Your task to perform on an android device: allow notifications from all sites in the chrome app Image 0: 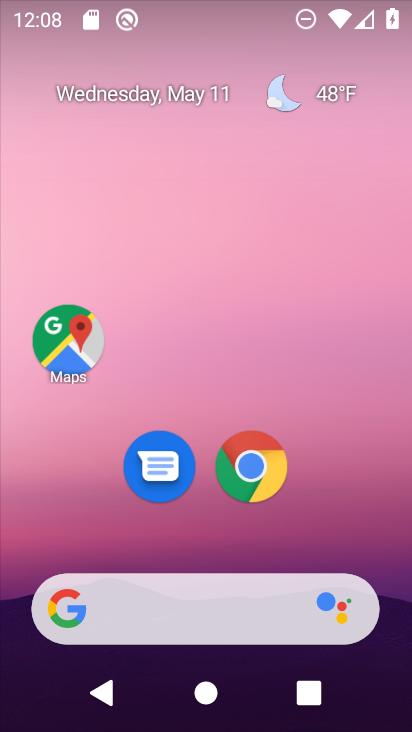
Step 0: click (248, 461)
Your task to perform on an android device: allow notifications from all sites in the chrome app Image 1: 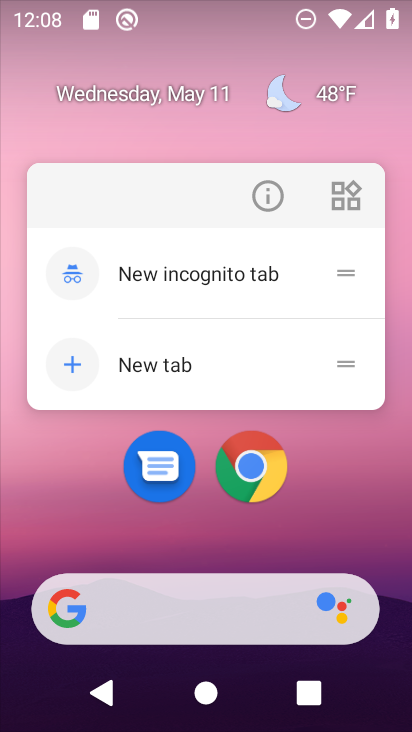
Step 1: click (247, 461)
Your task to perform on an android device: allow notifications from all sites in the chrome app Image 2: 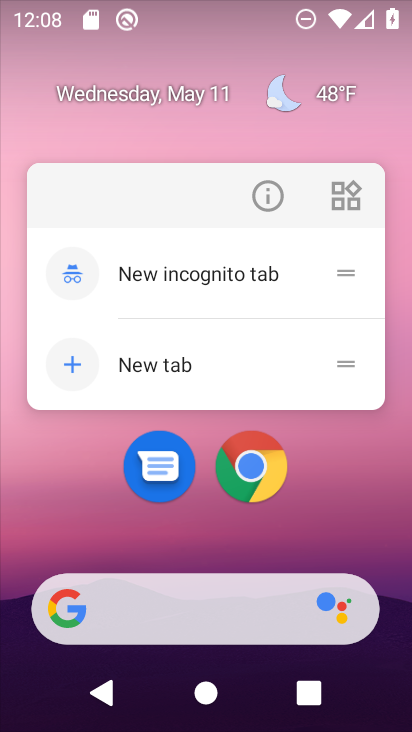
Step 2: click (248, 459)
Your task to perform on an android device: allow notifications from all sites in the chrome app Image 3: 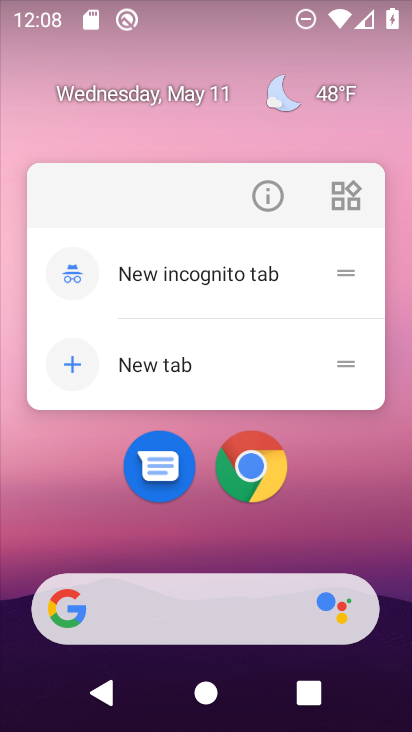
Step 3: click (249, 467)
Your task to perform on an android device: allow notifications from all sites in the chrome app Image 4: 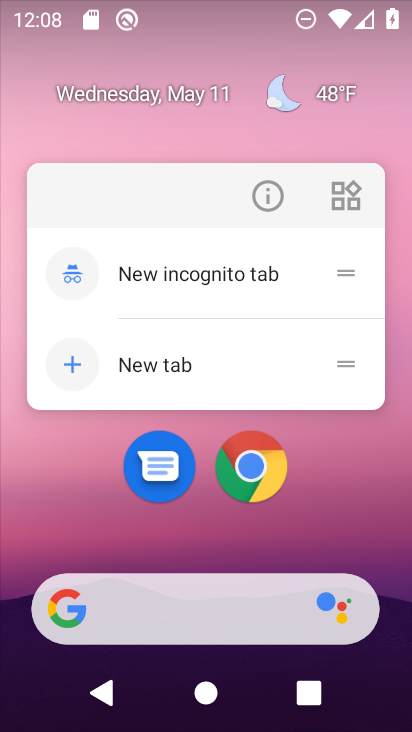
Step 4: click (251, 459)
Your task to perform on an android device: allow notifications from all sites in the chrome app Image 5: 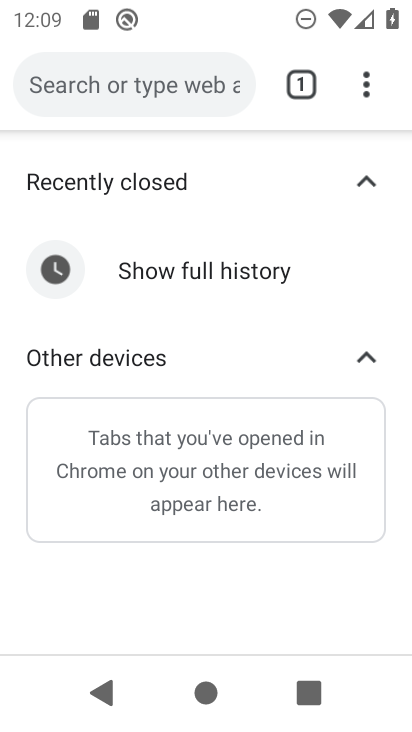
Step 5: press home button
Your task to perform on an android device: allow notifications from all sites in the chrome app Image 6: 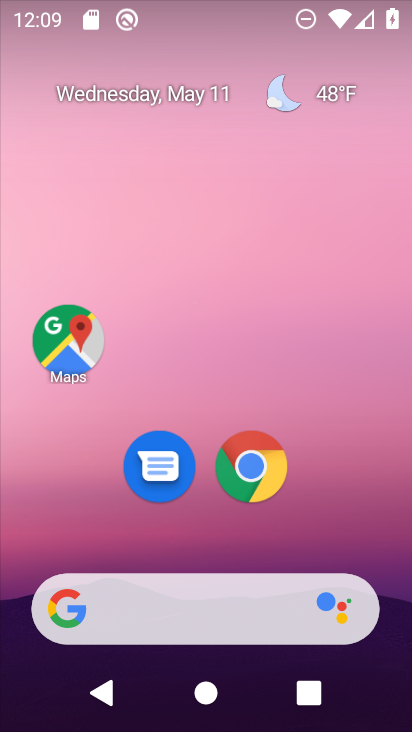
Step 6: click (248, 461)
Your task to perform on an android device: allow notifications from all sites in the chrome app Image 7: 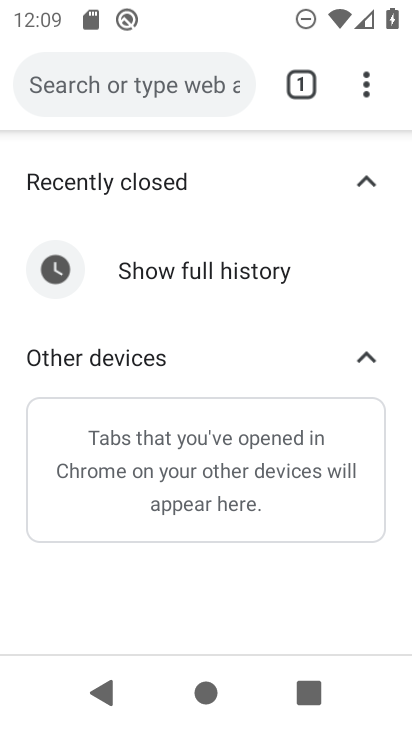
Step 7: click (351, 76)
Your task to perform on an android device: allow notifications from all sites in the chrome app Image 8: 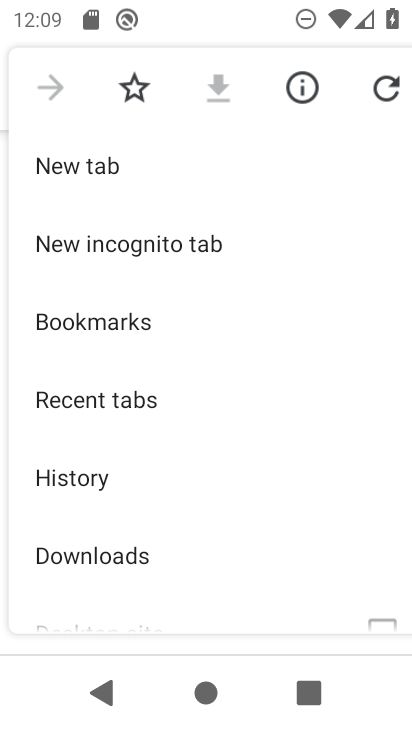
Step 8: drag from (222, 541) to (242, 75)
Your task to perform on an android device: allow notifications from all sites in the chrome app Image 9: 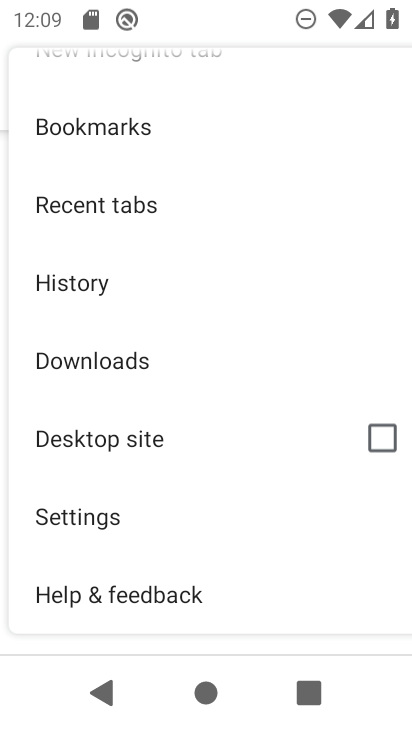
Step 9: click (137, 516)
Your task to perform on an android device: allow notifications from all sites in the chrome app Image 10: 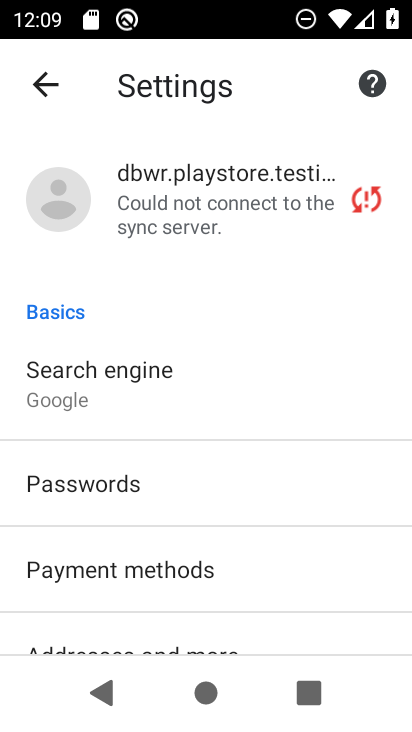
Step 10: drag from (184, 604) to (230, 147)
Your task to perform on an android device: allow notifications from all sites in the chrome app Image 11: 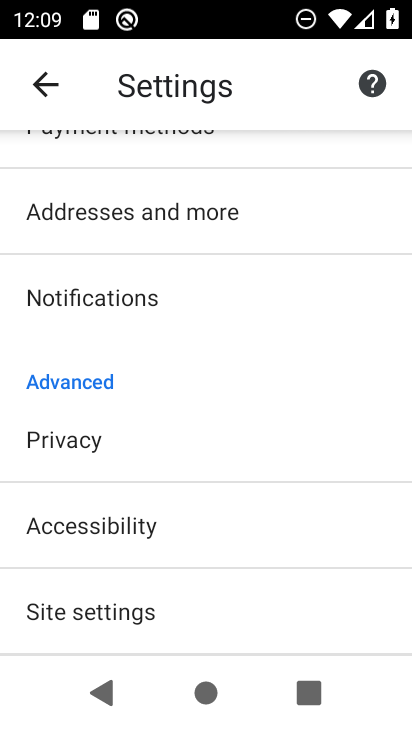
Step 11: click (173, 288)
Your task to perform on an android device: allow notifications from all sites in the chrome app Image 12: 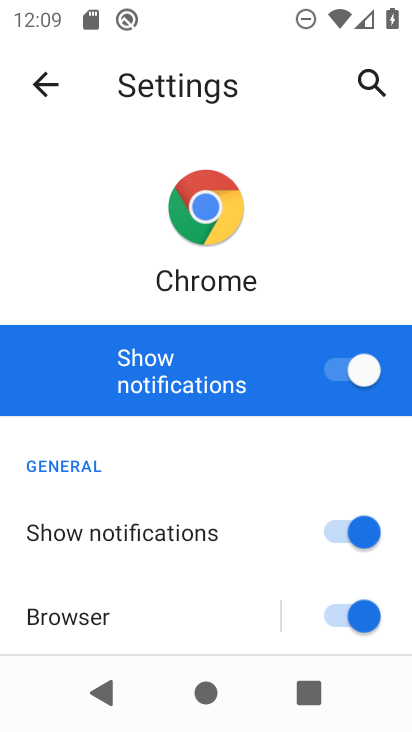
Step 12: task complete